Your task to perform on an android device: move an email to a new category in the gmail app Image 0: 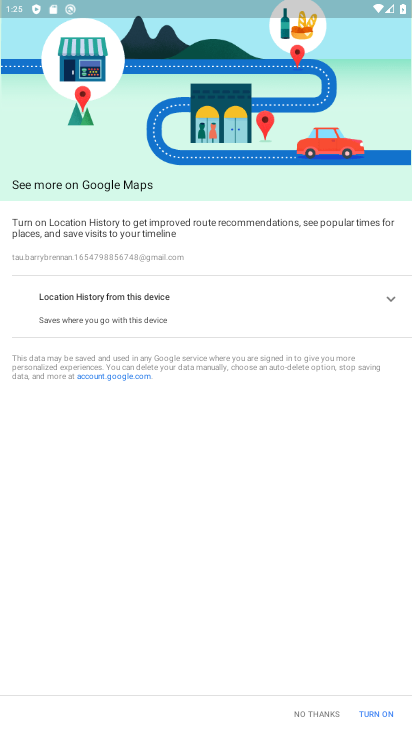
Step 0: press home button
Your task to perform on an android device: move an email to a new category in the gmail app Image 1: 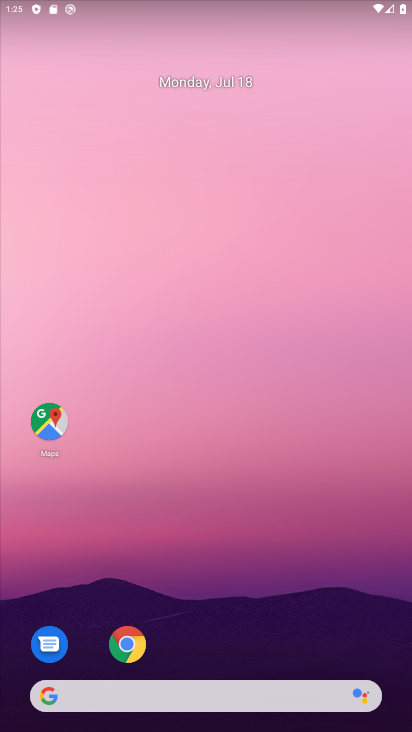
Step 1: drag from (274, 632) to (212, 142)
Your task to perform on an android device: move an email to a new category in the gmail app Image 2: 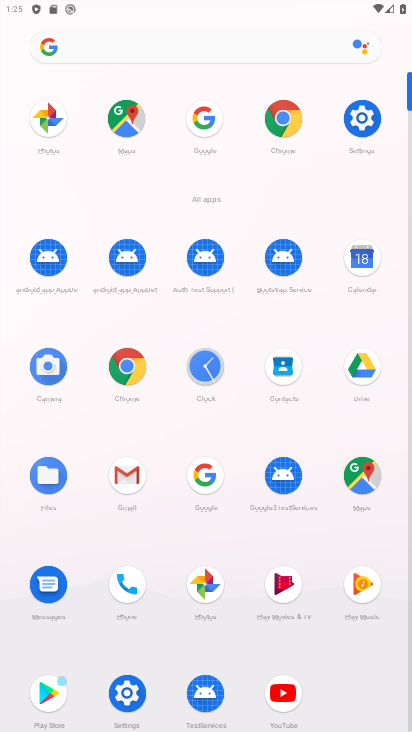
Step 2: click (136, 472)
Your task to perform on an android device: move an email to a new category in the gmail app Image 3: 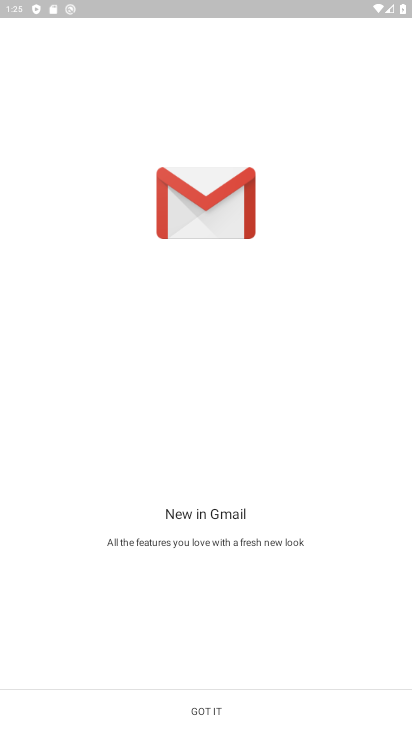
Step 3: click (274, 719)
Your task to perform on an android device: move an email to a new category in the gmail app Image 4: 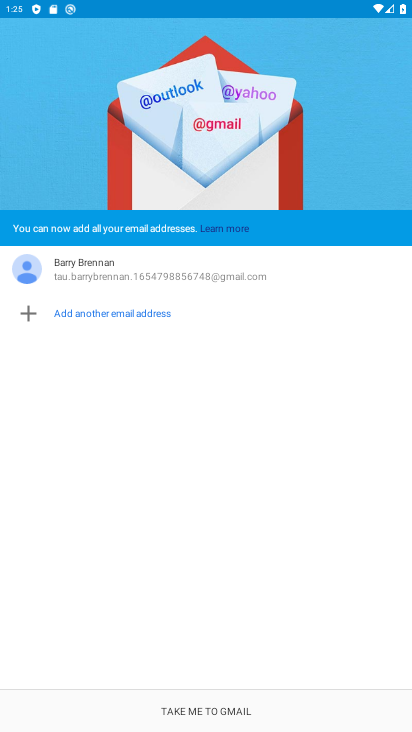
Step 4: click (274, 719)
Your task to perform on an android device: move an email to a new category in the gmail app Image 5: 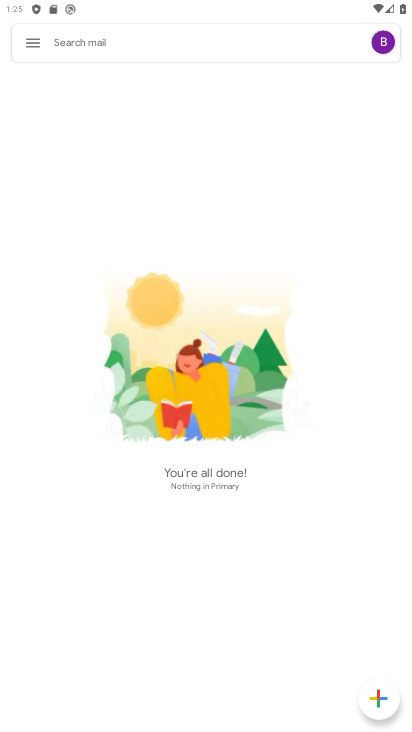
Step 5: click (7, 33)
Your task to perform on an android device: move an email to a new category in the gmail app Image 6: 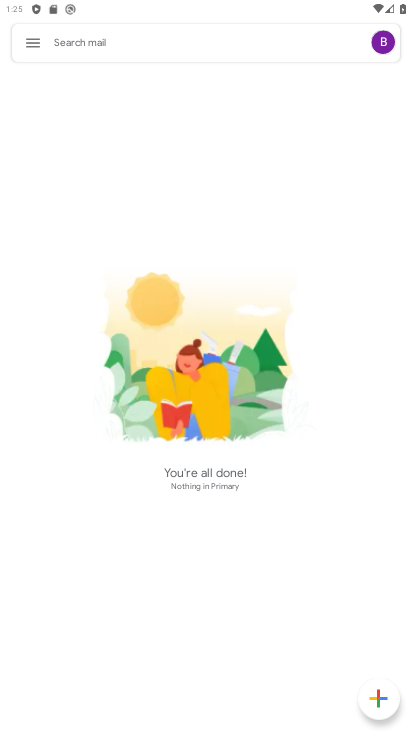
Step 6: click (31, 33)
Your task to perform on an android device: move an email to a new category in the gmail app Image 7: 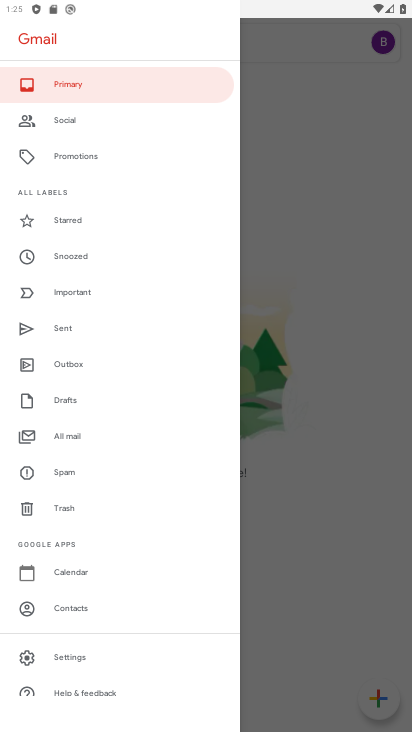
Step 7: click (86, 432)
Your task to perform on an android device: move an email to a new category in the gmail app Image 8: 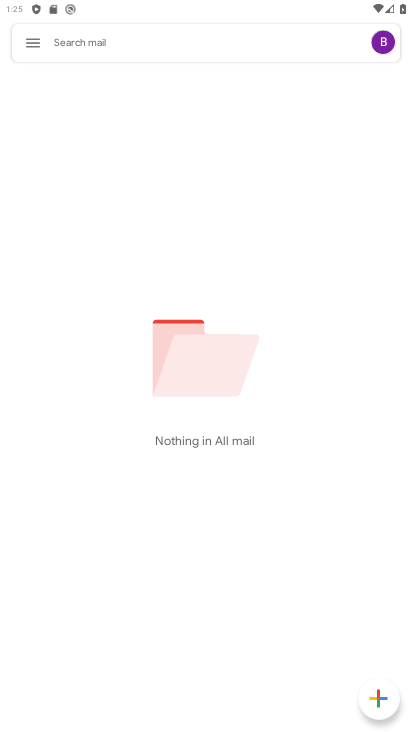
Step 8: task complete